Your task to perform on an android device: Search for "dell xps" on target.com, select the first entry, add it to the cart, then select checkout. Image 0: 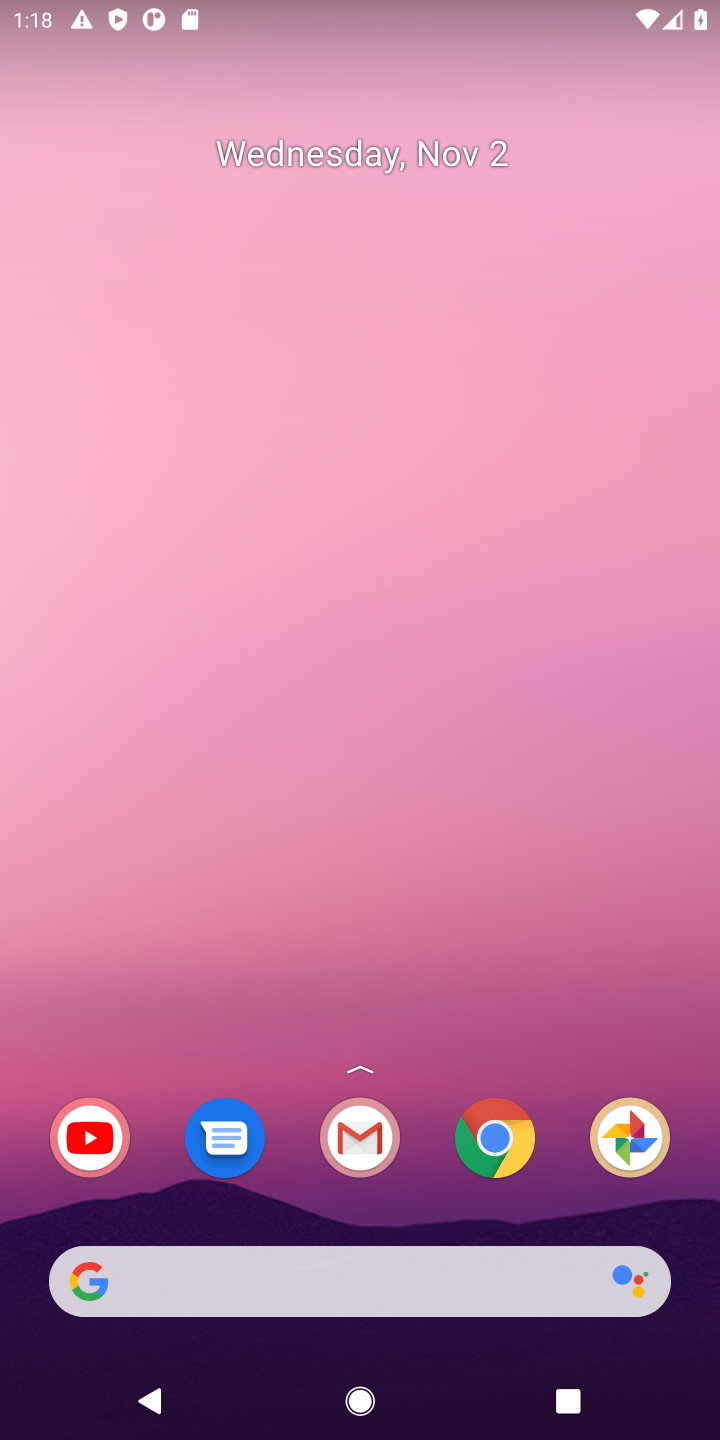
Step 0: press home button
Your task to perform on an android device: Search for "dell xps" on target.com, select the first entry, add it to the cart, then select checkout. Image 1: 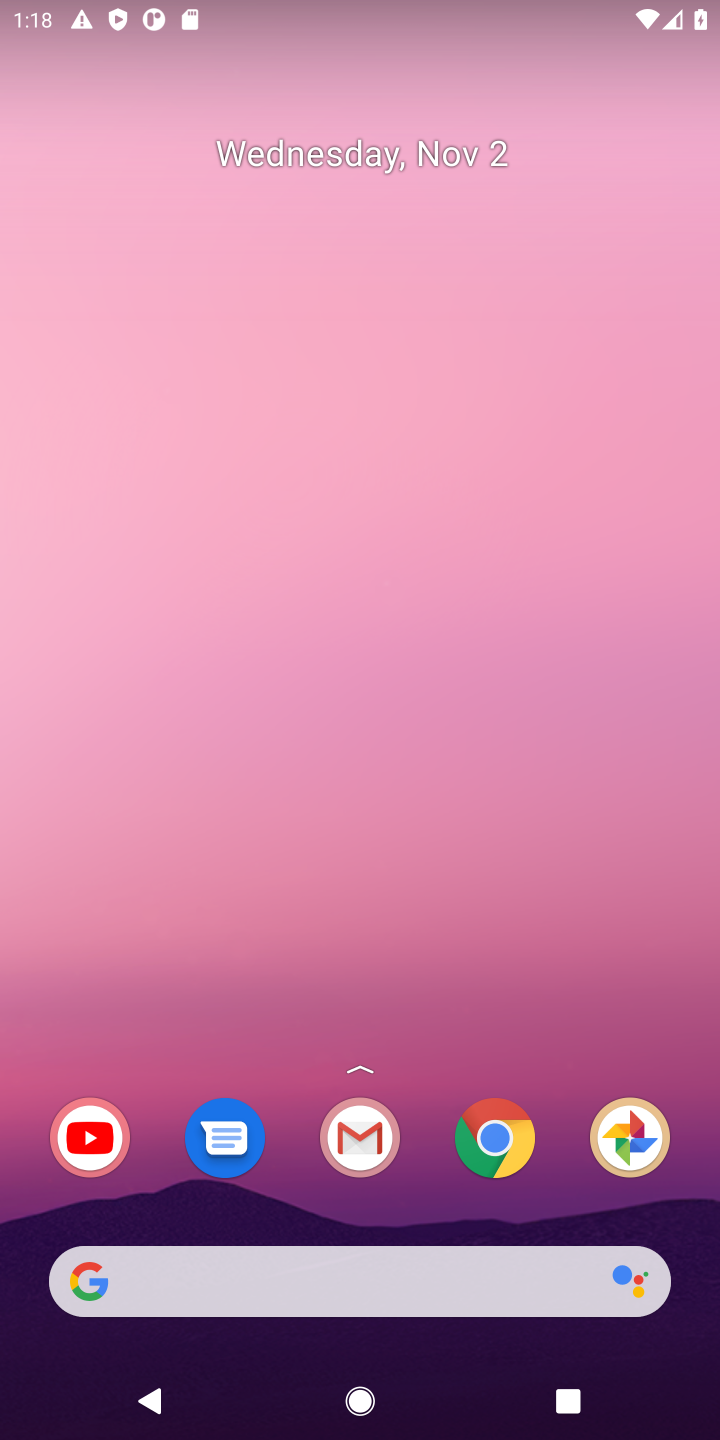
Step 1: click (132, 1274)
Your task to perform on an android device: Search for "dell xps" on target.com, select the first entry, add it to the cart, then select checkout. Image 2: 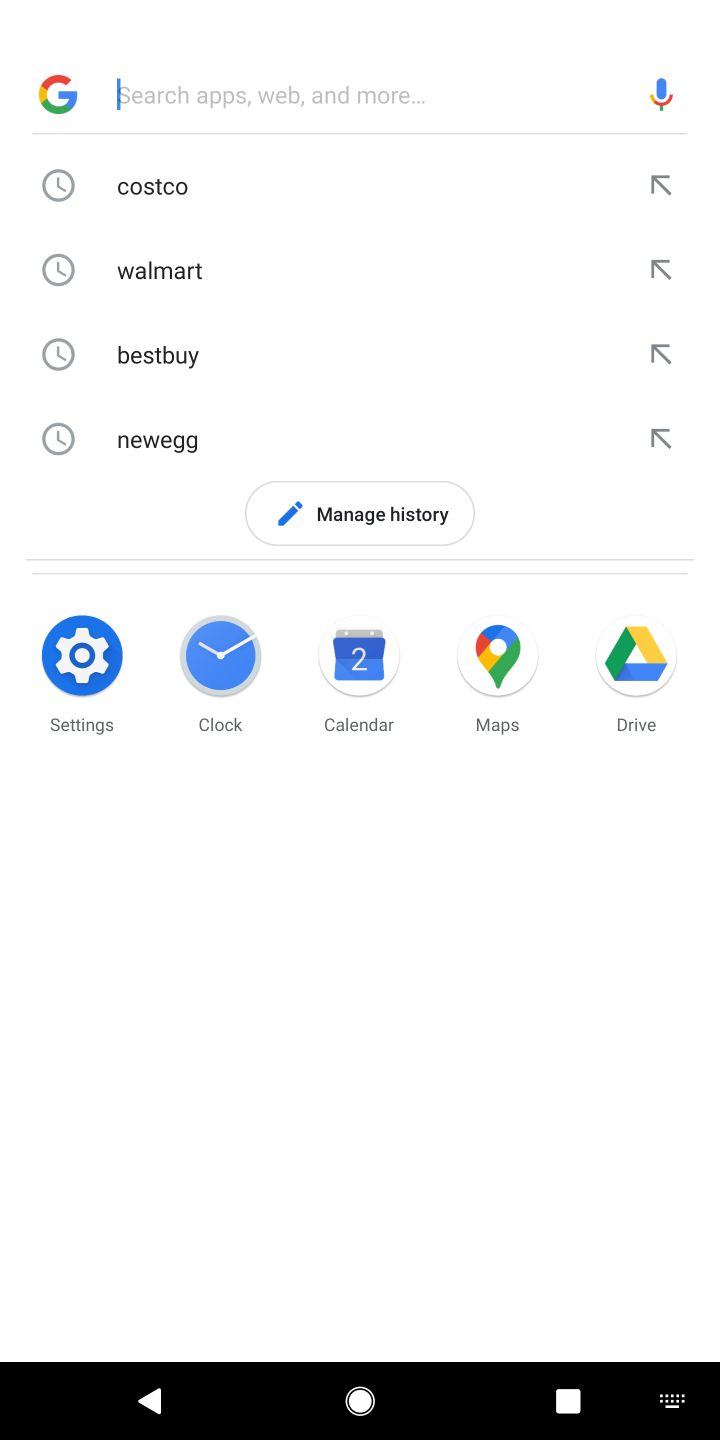
Step 2: press enter
Your task to perform on an android device: Search for "dell xps" on target.com, select the first entry, add it to the cart, then select checkout. Image 3: 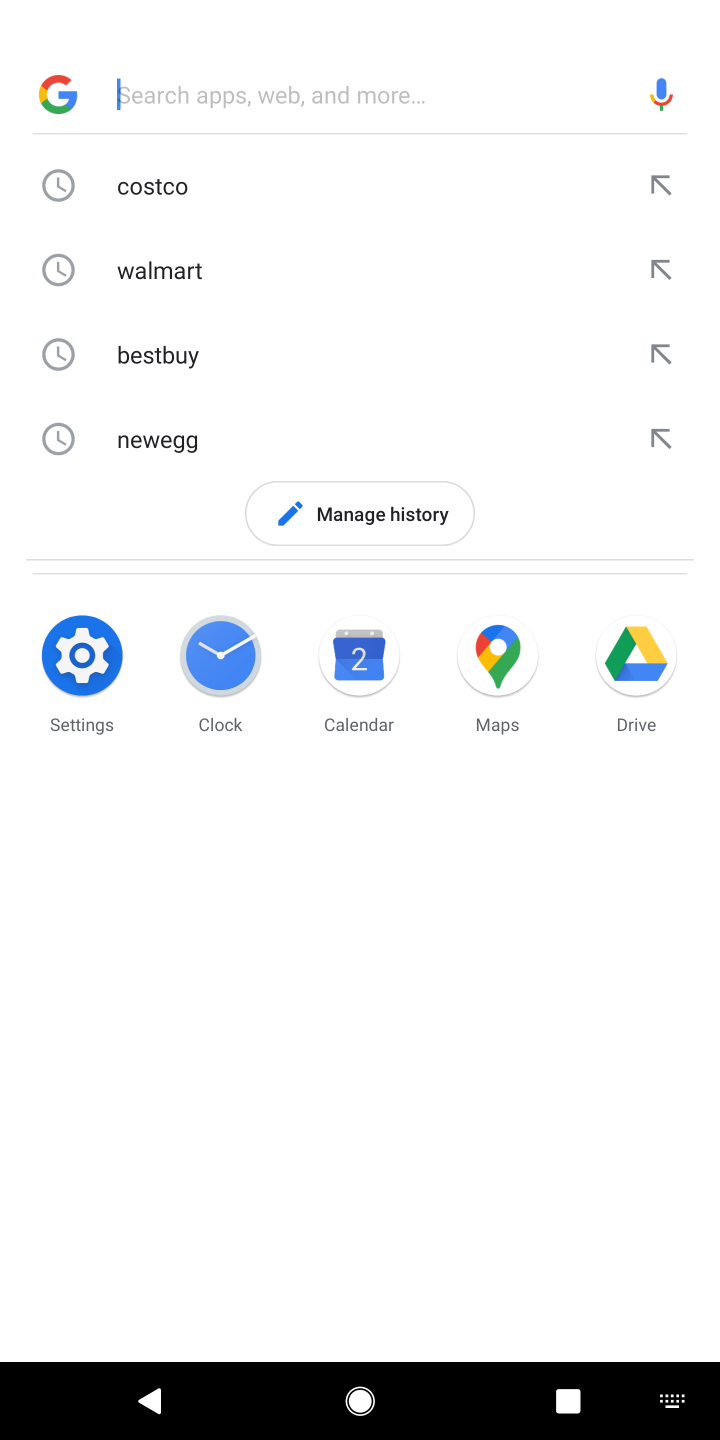
Step 3: type "target.com"
Your task to perform on an android device: Search for "dell xps" on target.com, select the first entry, add it to the cart, then select checkout. Image 4: 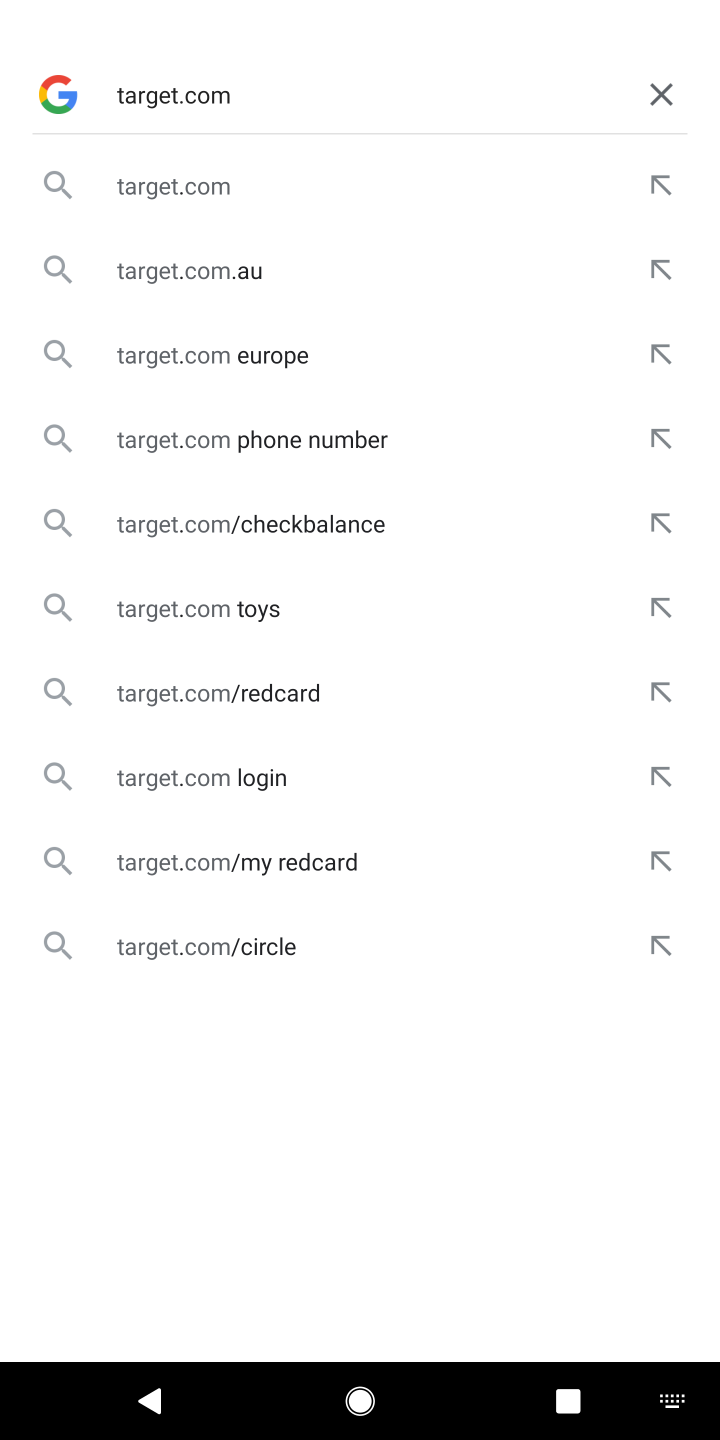
Step 4: press enter
Your task to perform on an android device: Search for "dell xps" on target.com, select the first entry, add it to the cart, then select checkout. Image 5: 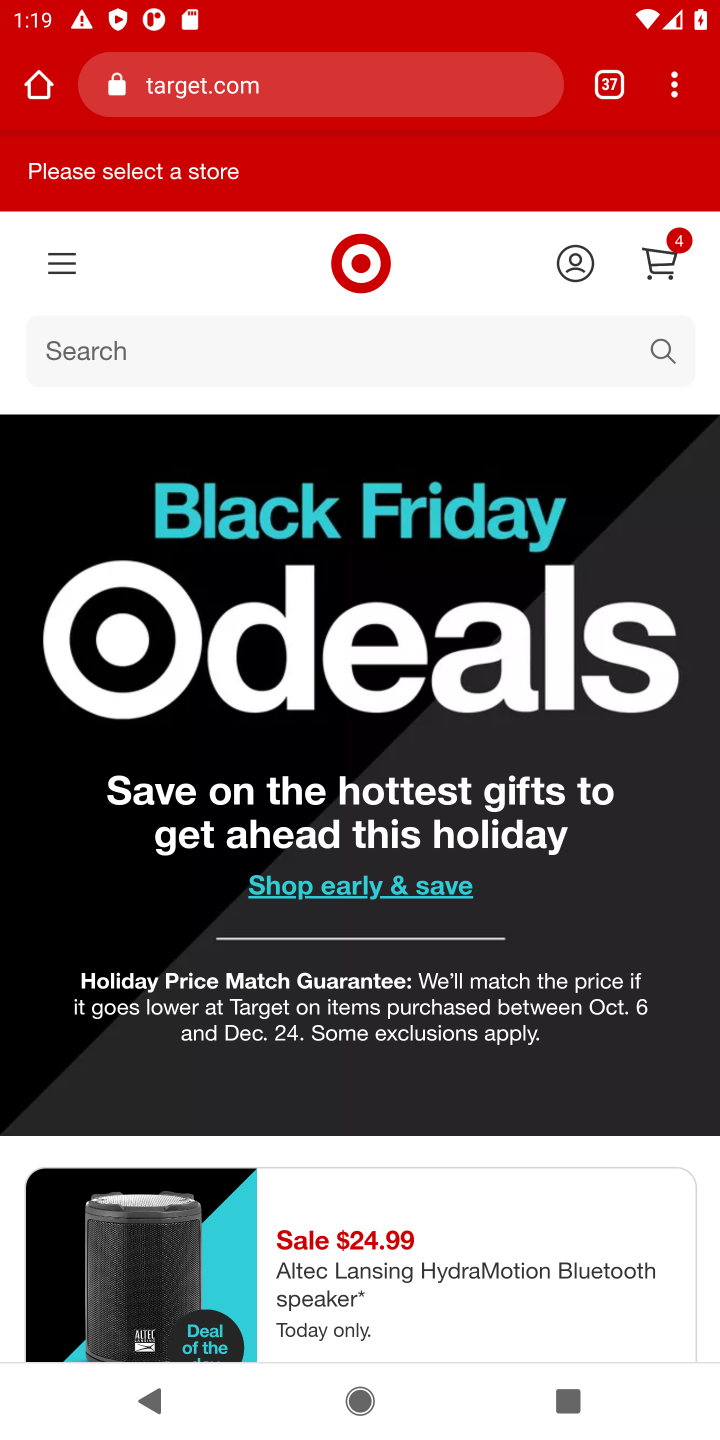
Step 5: click (133, 342)
Your task to perform on an android device: Search for "dell xps" on target.com, select the first entry, add it to the cart, then select checkout. Image 6: 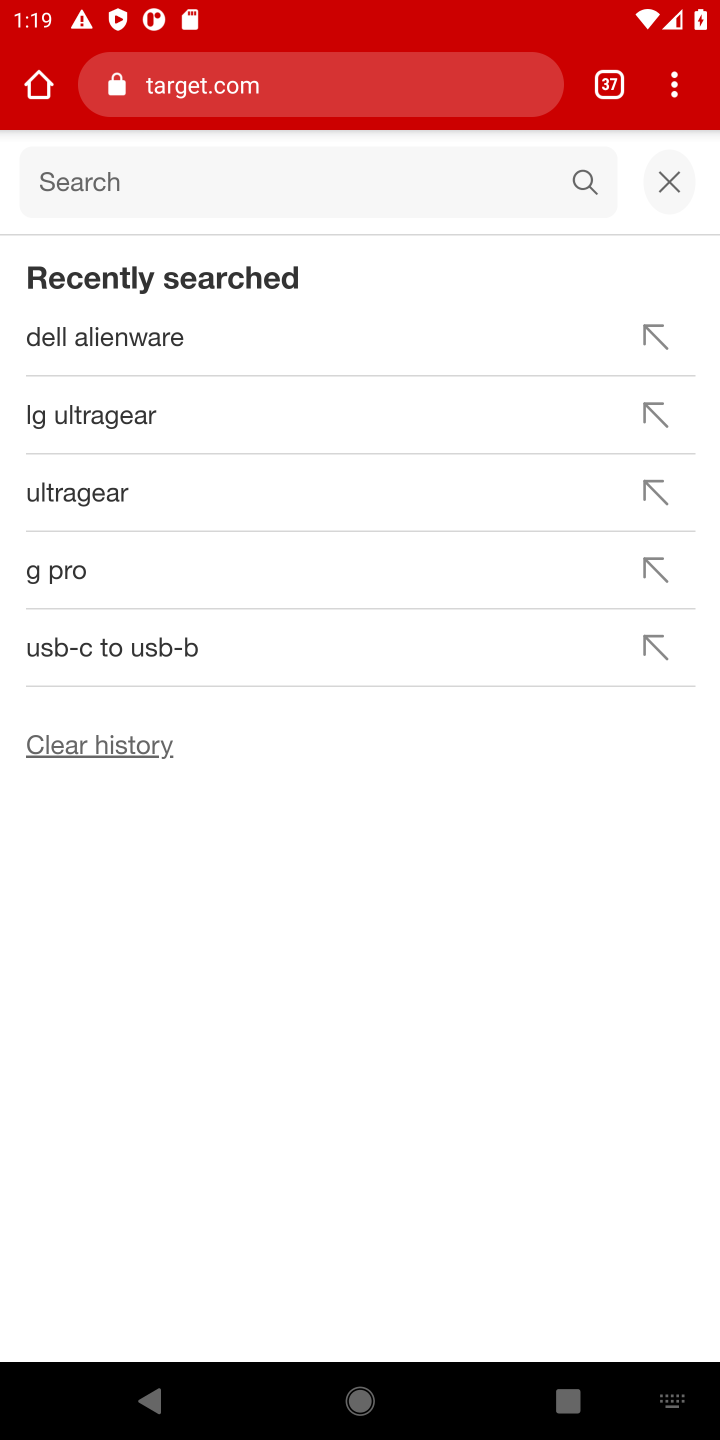
Step 6: press enter
Your task to perform on an android device: Search for "dell xps" on target.com, select the first entry, add it to the cart, then select checkout. Image 7: 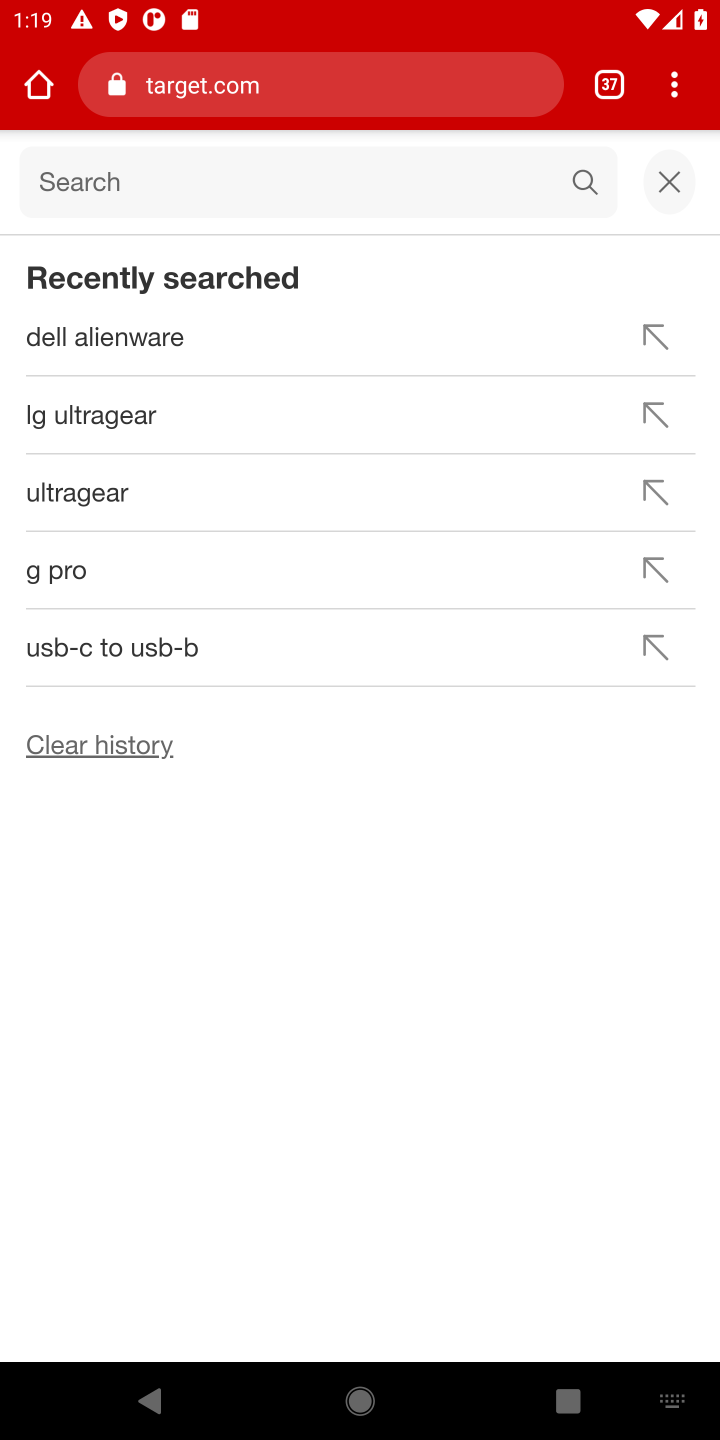
Step 7: type "dell xps"
Your task to perform on an android device: Search for "dell xps" on target.com, select the first entry, add it to the cart, then select checkout. Image 8: 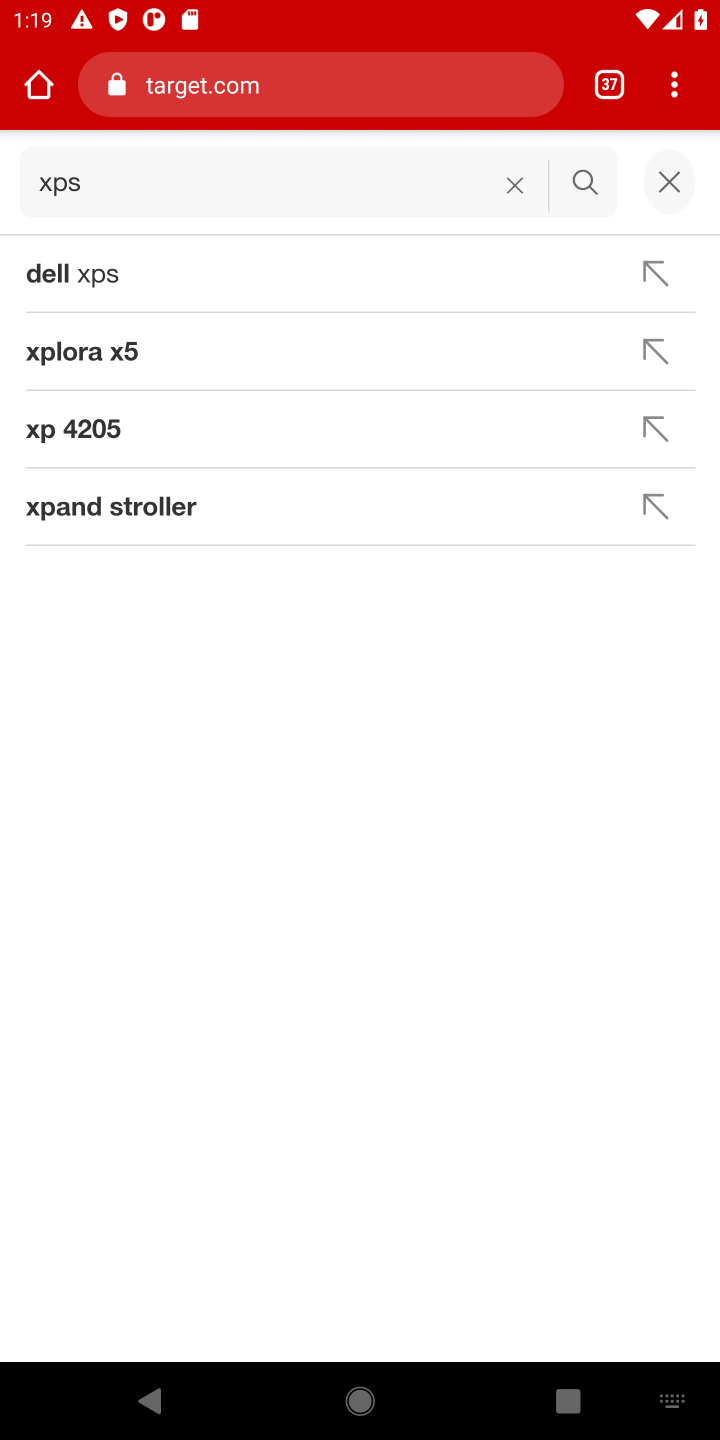
Step 8: click (174, 268)
Your task to perform on an android device: Search for "dell xps" on target.com, select the first entry, add it to the cart, then select checkout. Image 9: 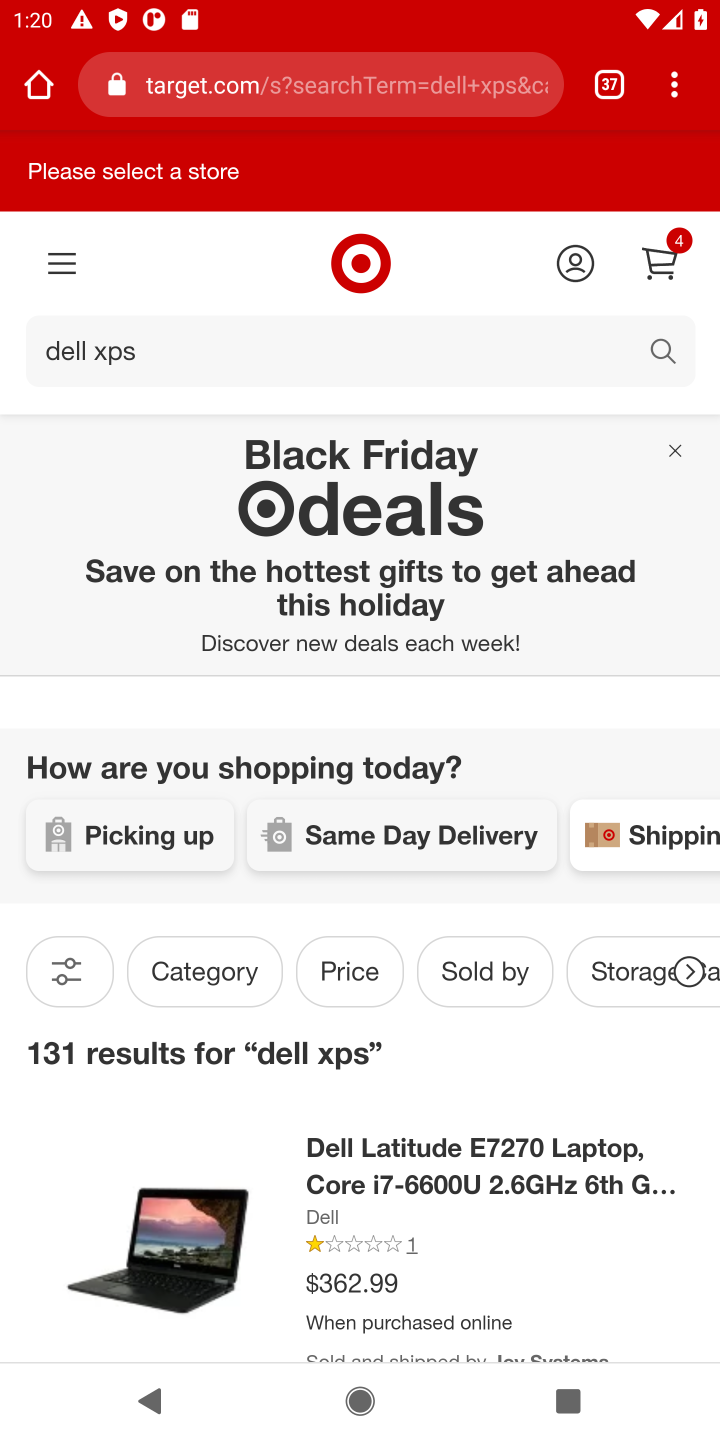
Step 9: task complete